Your task to perform on an android device: Turn on the flashlight Image 0: 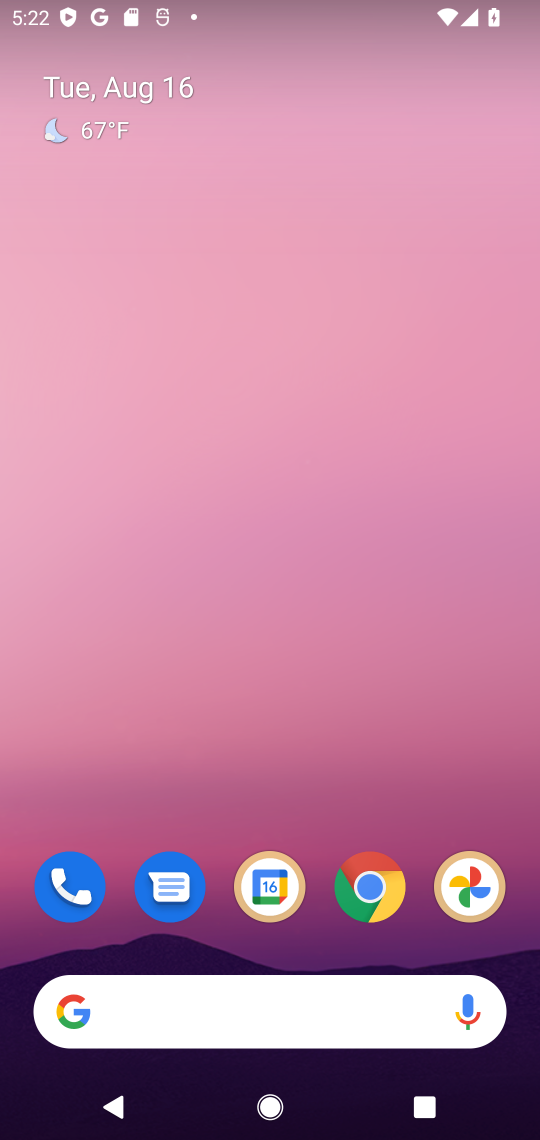
Step 0: drag from (368, 670) to (322, 2)
Your task to perform on an android device: Turn on the flashlight Image 1: 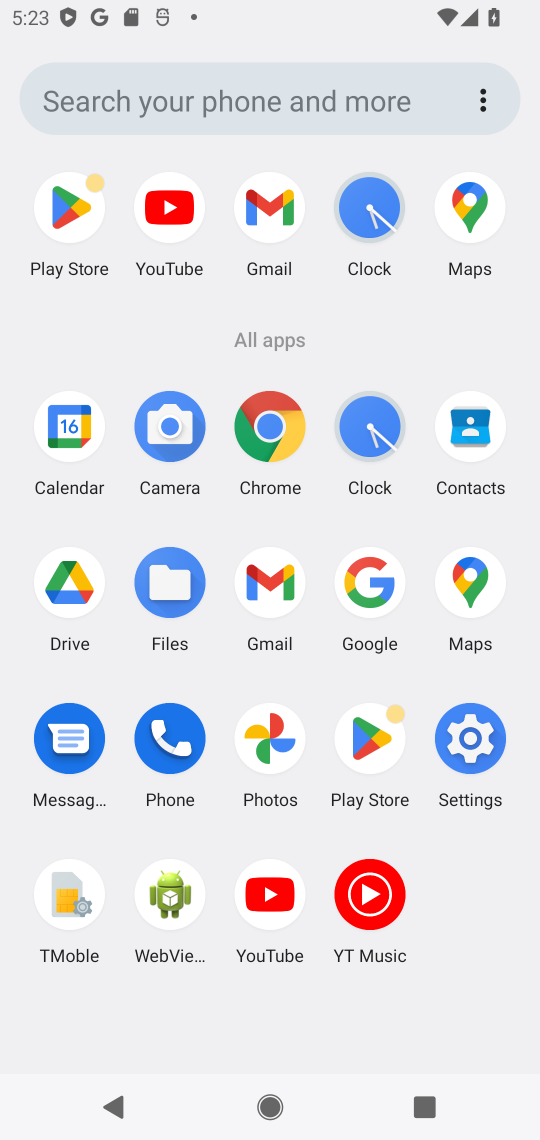
Step 1: click (465, 755)
Your task to perform on an android device: Turn on the flashlight Image 2: 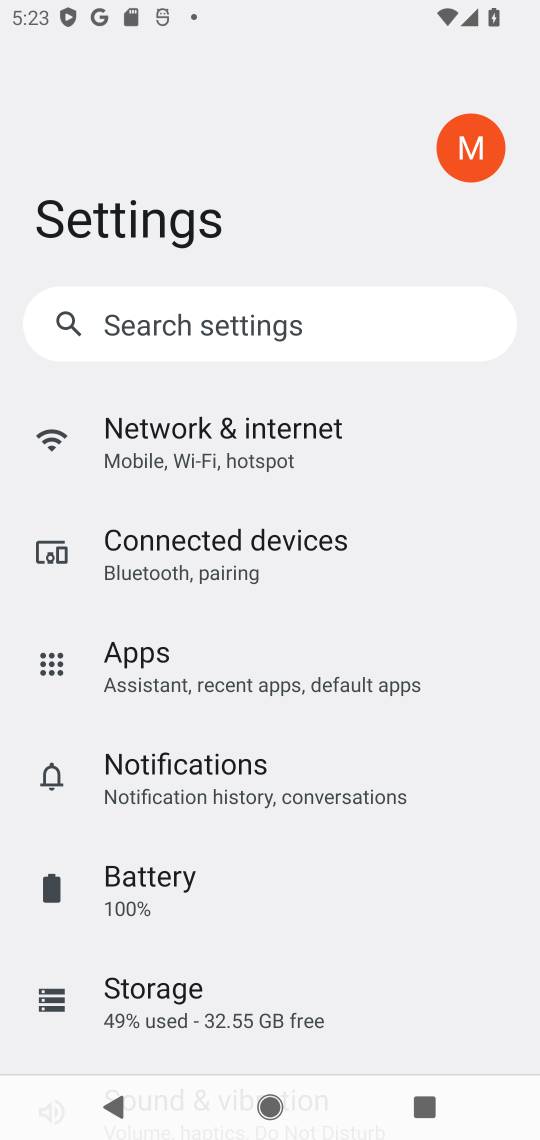
Step 2: drag from (277, 935) to (347, 366)
Your task to perform on an android device: Turn on the flashlight Image 3: 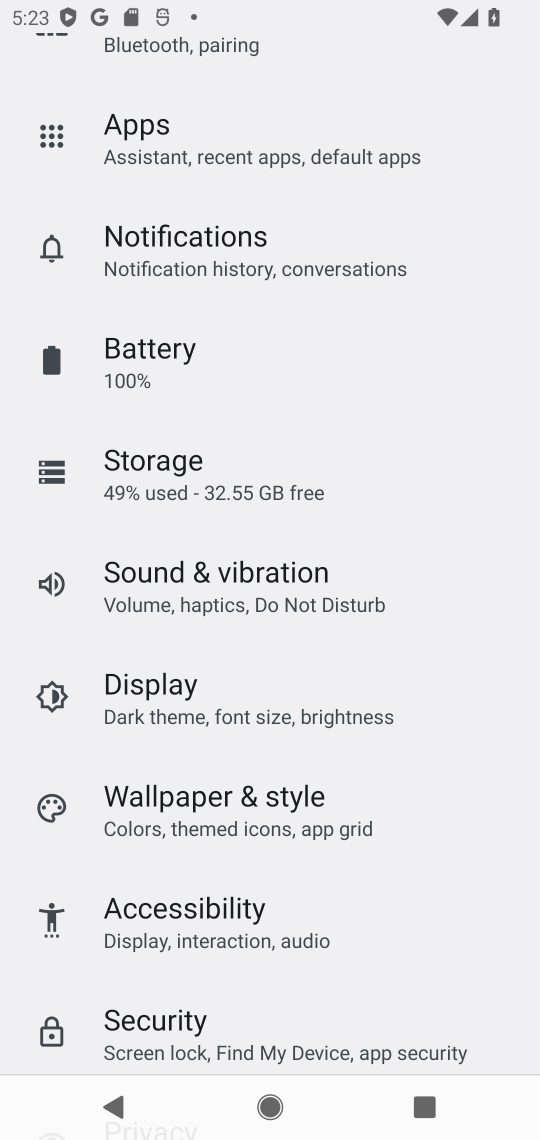
Step 3: click (188, 692)
Your task to perform on an android device: Turn on the flashlight Image 4: 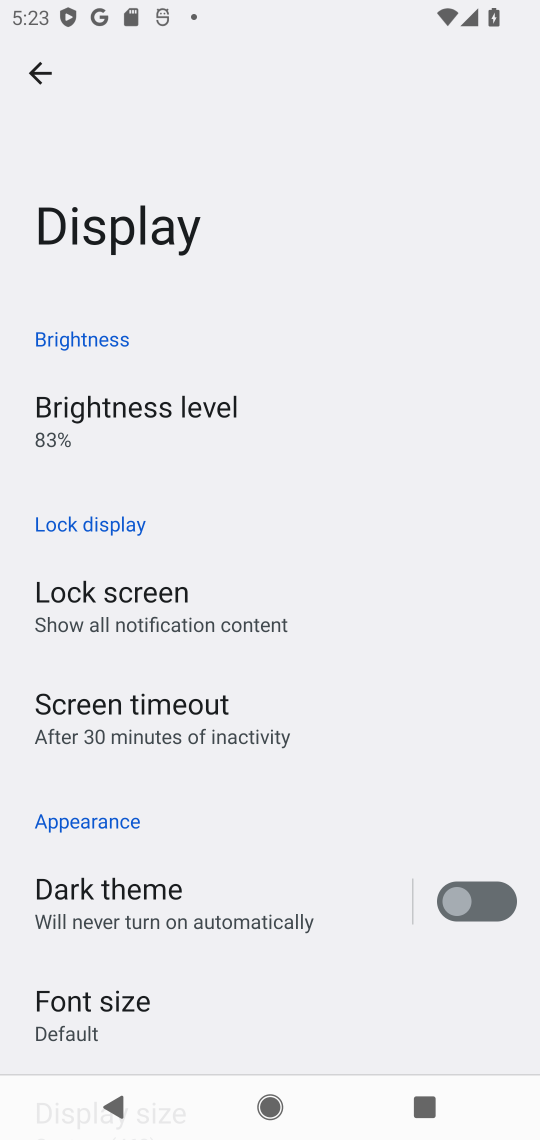
Step 4: task complete